Your task to perform on an android device: turn off notifications in google photos Image 0: 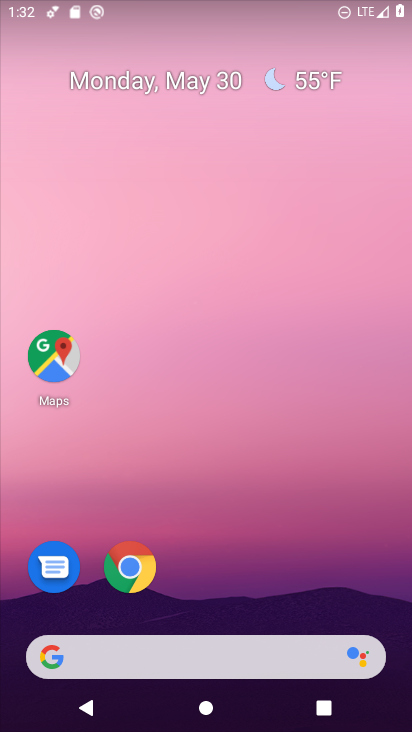
Step 0: drag from (218, 606) to (260, 208)
Your task to perform on an android device: turn off notifications in google photos Image 1: 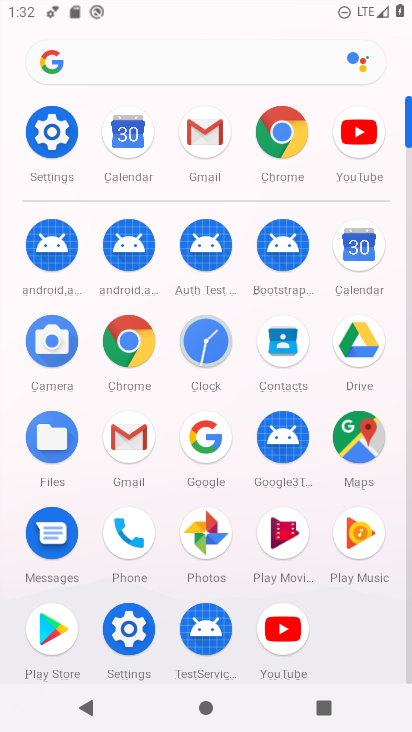
Step 1: click (205, 526)
Your task to perform on an android device: turn off notifications in google photos Image 2: 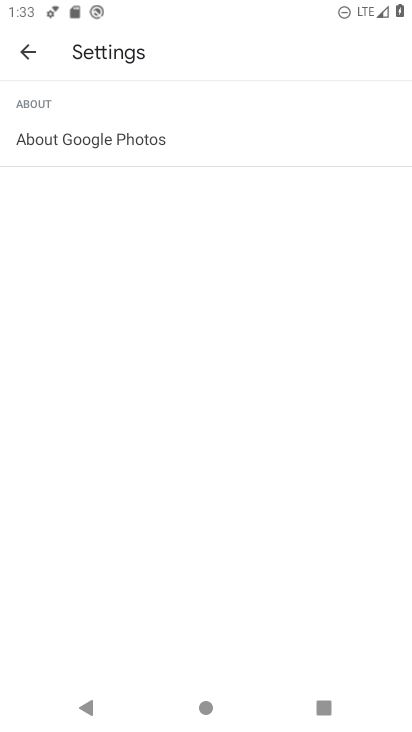
Step 2: click (31, 56)
Your task to perform on an android device: turn off notifications in google photos Image 3: 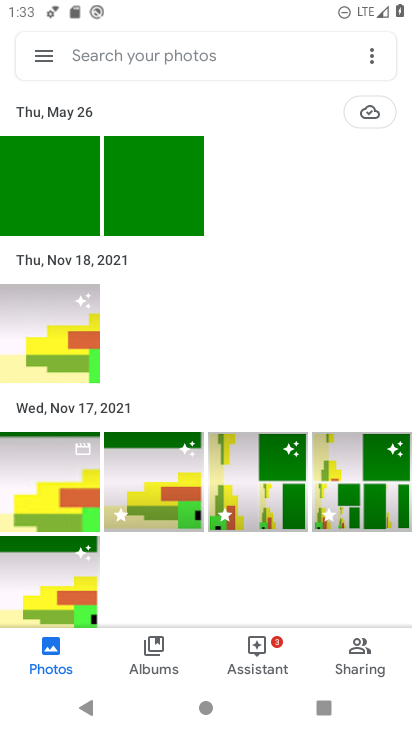
Step 3: click (38, 54)
Your task to perform on an android device: turn off notifications in google photos Image 4: 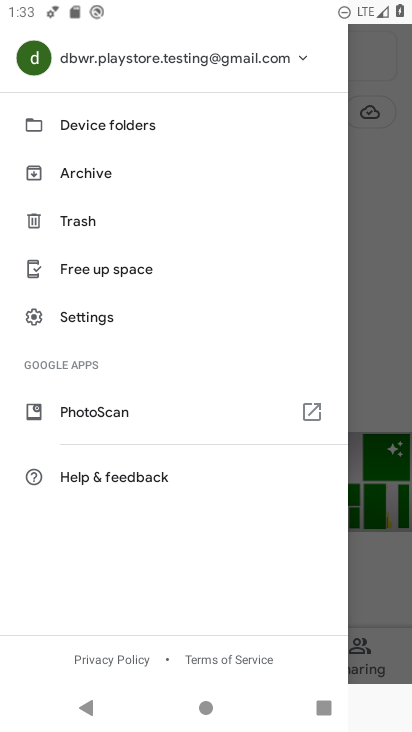
Step 4: click (118, 313)
Your task to perform on an android device: turn off notifications in google photos Image 5: 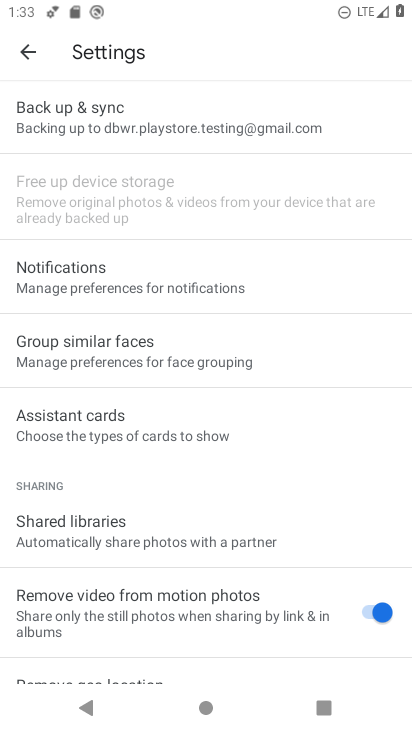
Step 5: click (135, 277)
Your task to perform on an android device: turn off notifications in google photos Image 6: 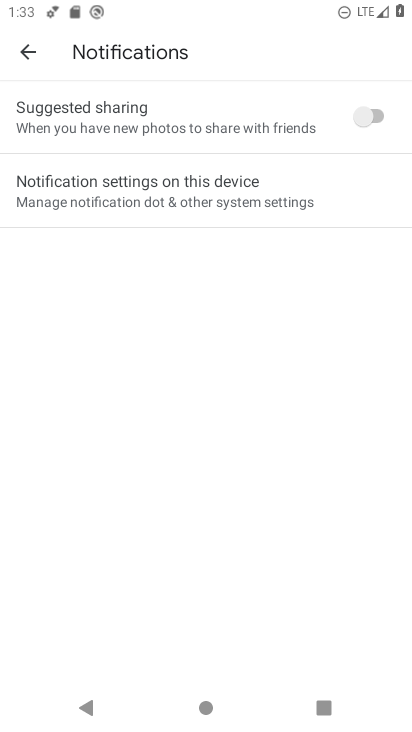
Step 6: click (176, 193)
Your task to perform on an android device: turn off notifications in google photos Image 7: 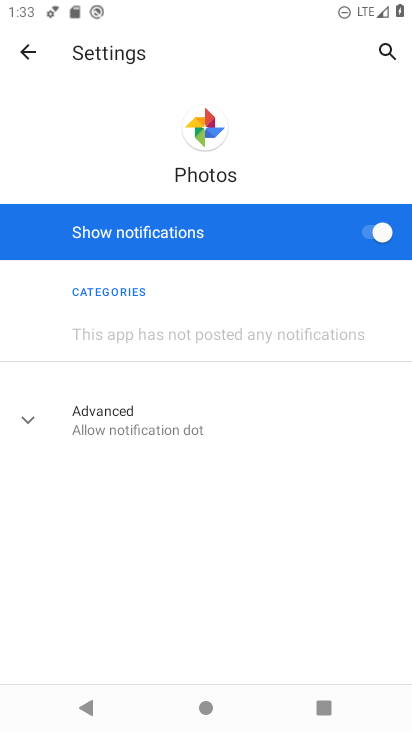
Step 7: click (370, 226)
Your task to perform on an android device: turn off notifications in google photos Image 8: 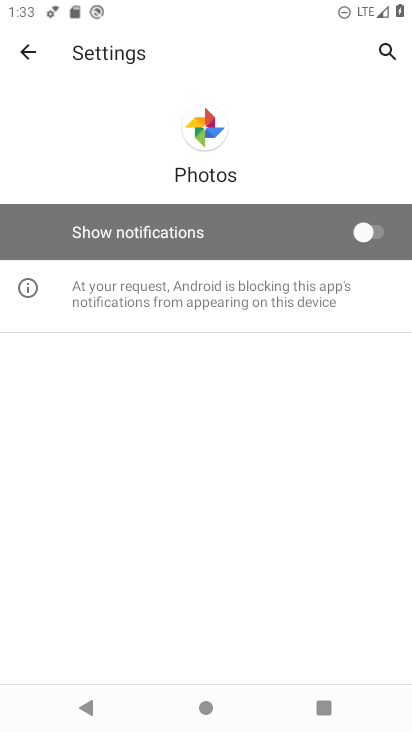
Step 8: task complete